Your task to perform on an android device: Go to battery settings Image 0: 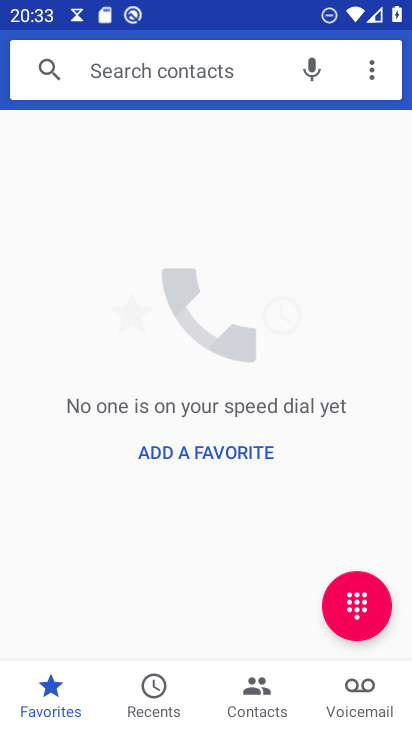
Step 0: press home button
Your task to perform on an android device: Go to battery settings Image 1: 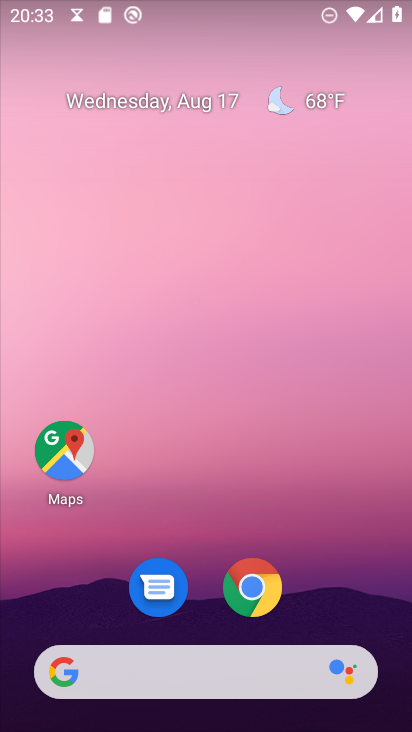
Step 1: drag from (26, 707) to (145, 360)
Your task to perform on an android device: Go to battery settings Image 2: 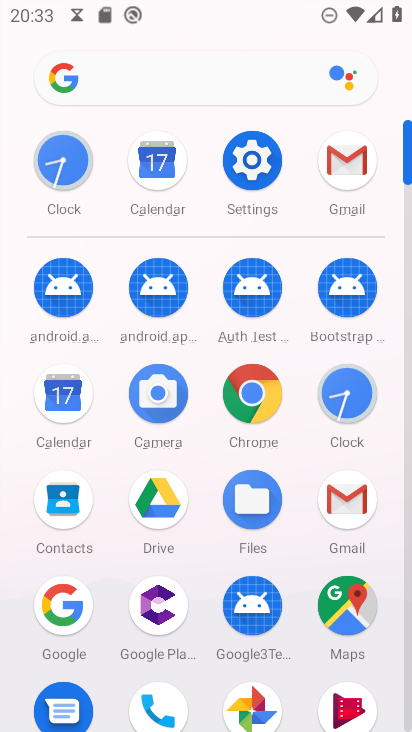
Step 2: click (246, 142)
Your task to perform on an android device: Go to battery settings Image 3: 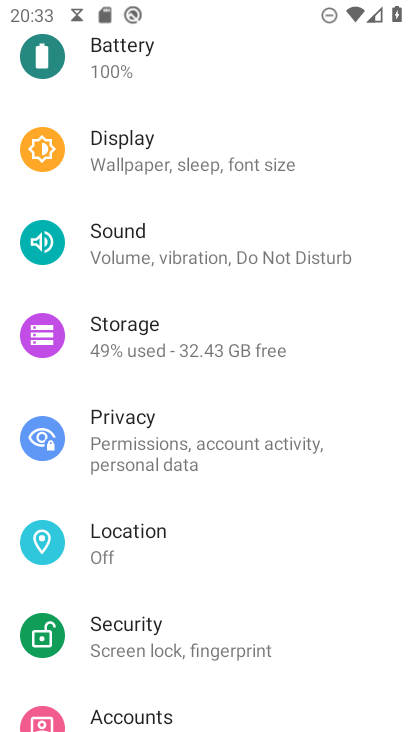
Step 3: click (120, 67)
Your task to perform on an android device: Go to battery settings Image 4: 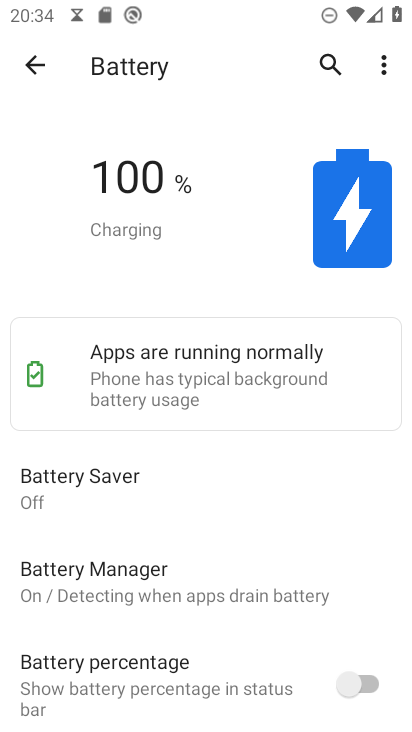
Step 4: task complete